Your task to perform on an android device: turn on airplane mode Image 0: 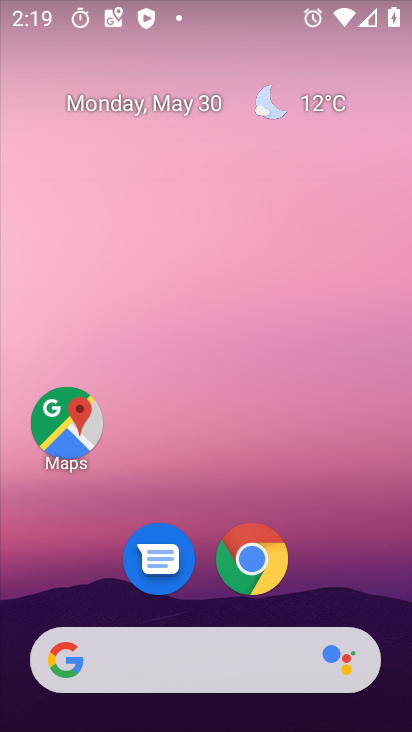
Step 0: drag from (305, 4) to (217, 522)
Your task to perform on an android device: turn on airplane mode Image 1: 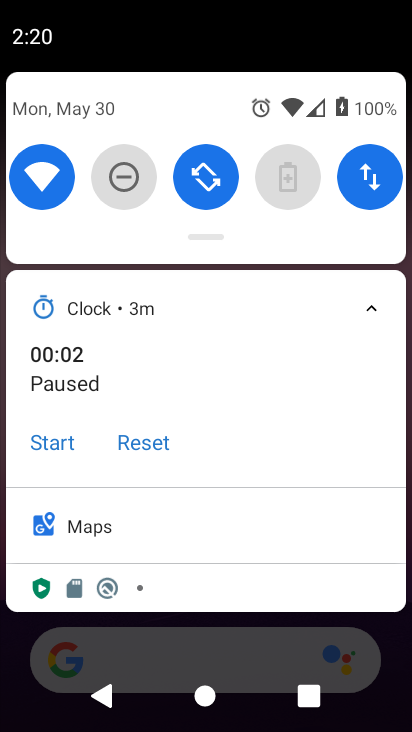
Step 1: drag from (196, 239) to (211, 595)
Your task to perform on an android device: turn on airplane mode Image 2: 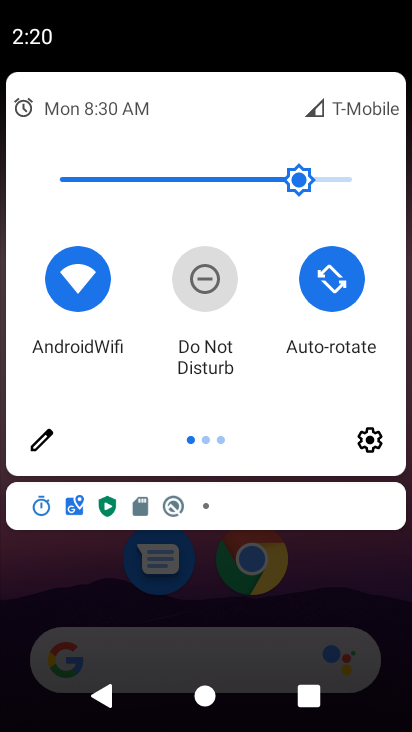
Step 2: drag from (346, 292) to (11, 259)
Your task to perform on an android device: turn on airplane mode Image 3: 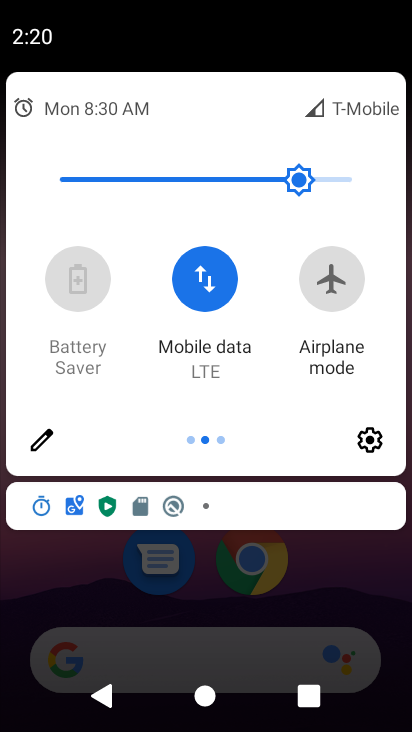
Step 3: click (336, 274)
Your task to perform on an android device: turn on airplane mode Image 4: 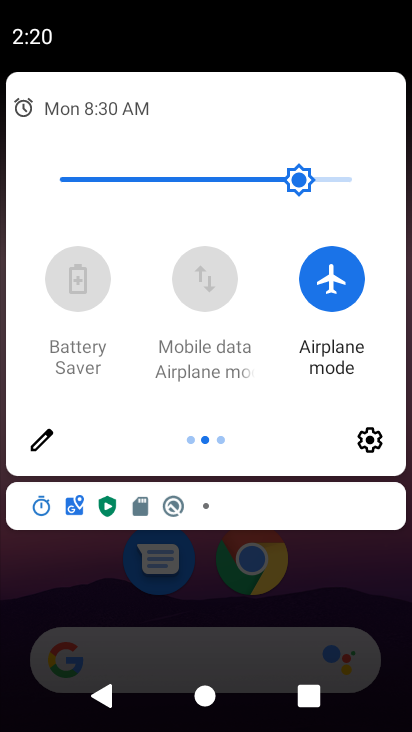
Step 4: task complete